Your task to perform on an android device: What's the weather going to be this weekend? Image 0: 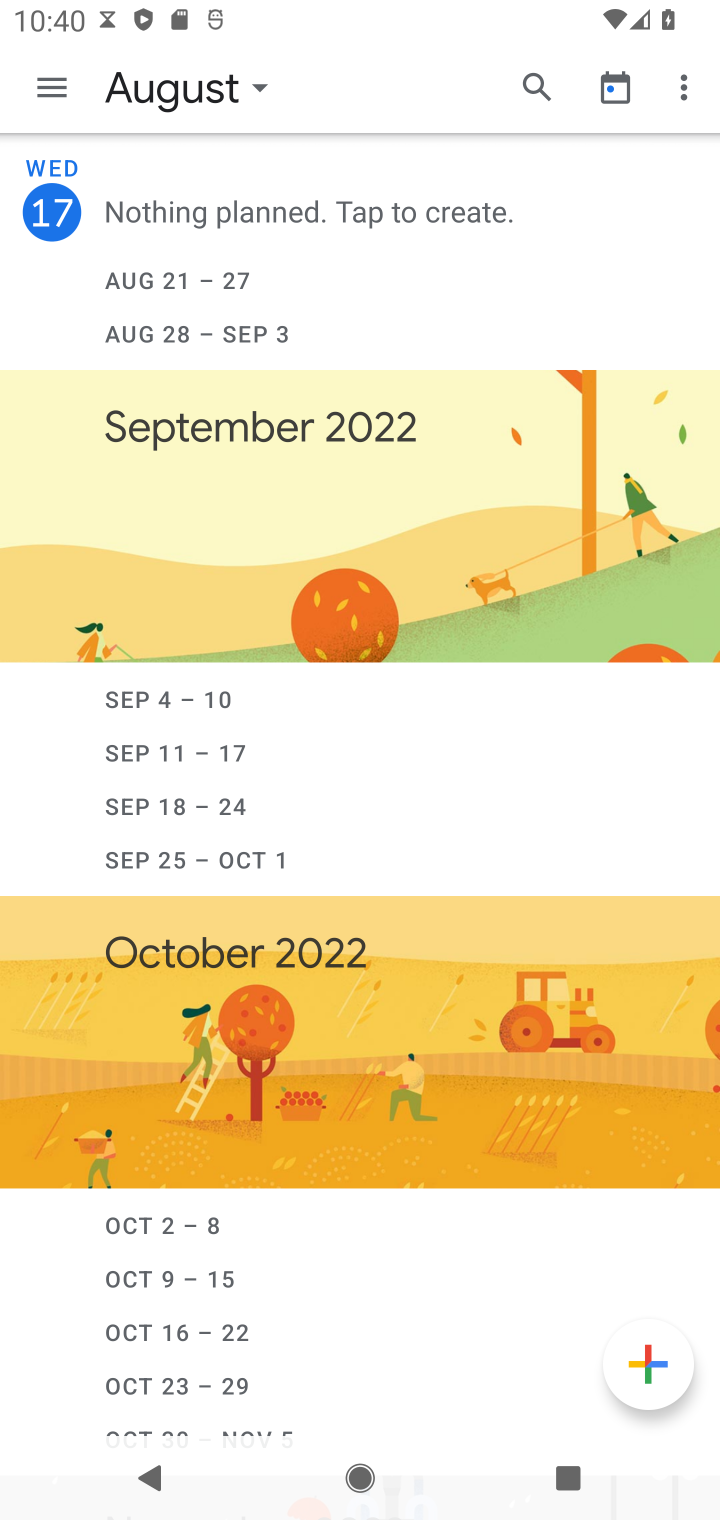
Step 0: press back button
Your task to perform on an android device: What's the weather going to be this weekend? Image 1: 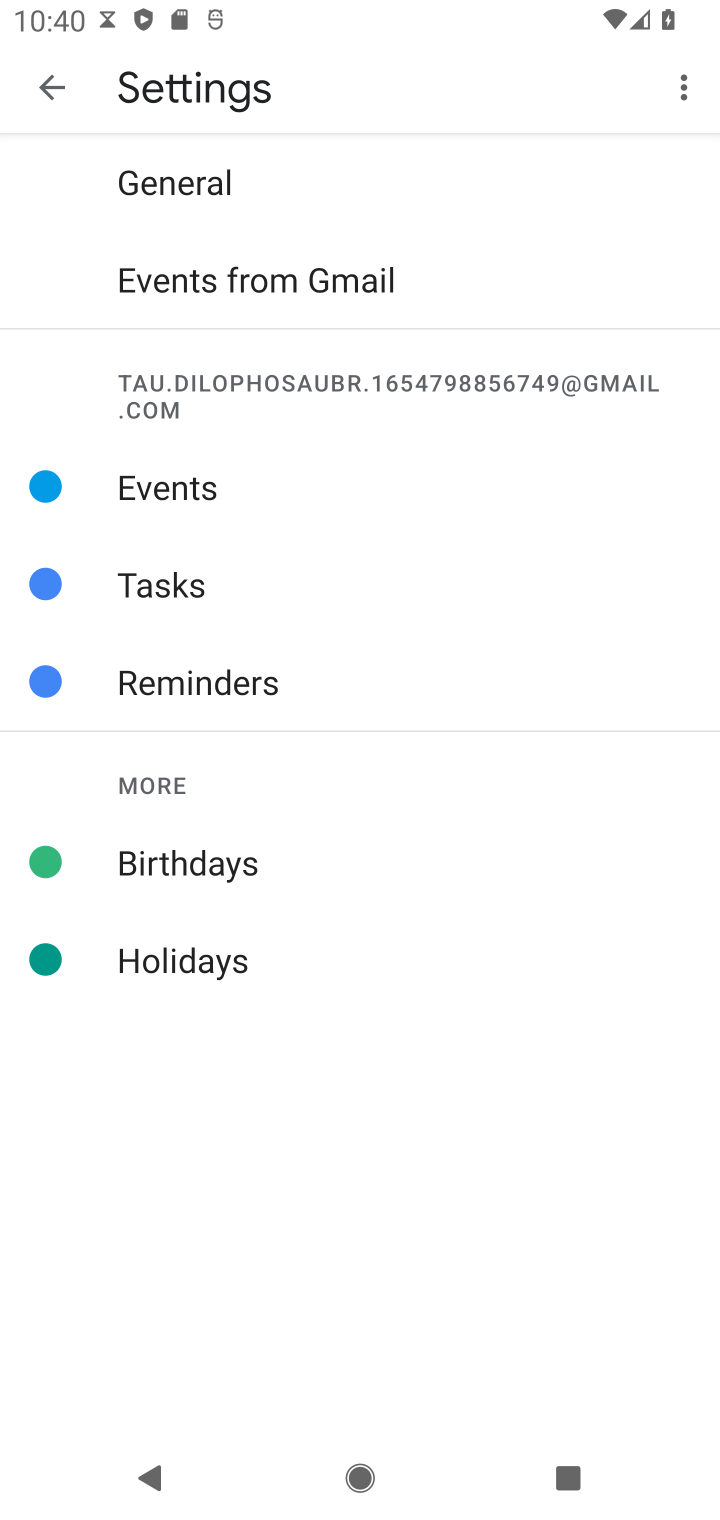
Step 1: press back button
Your task to perform on an android device: What's the weather going to be this weekend? Image 2: 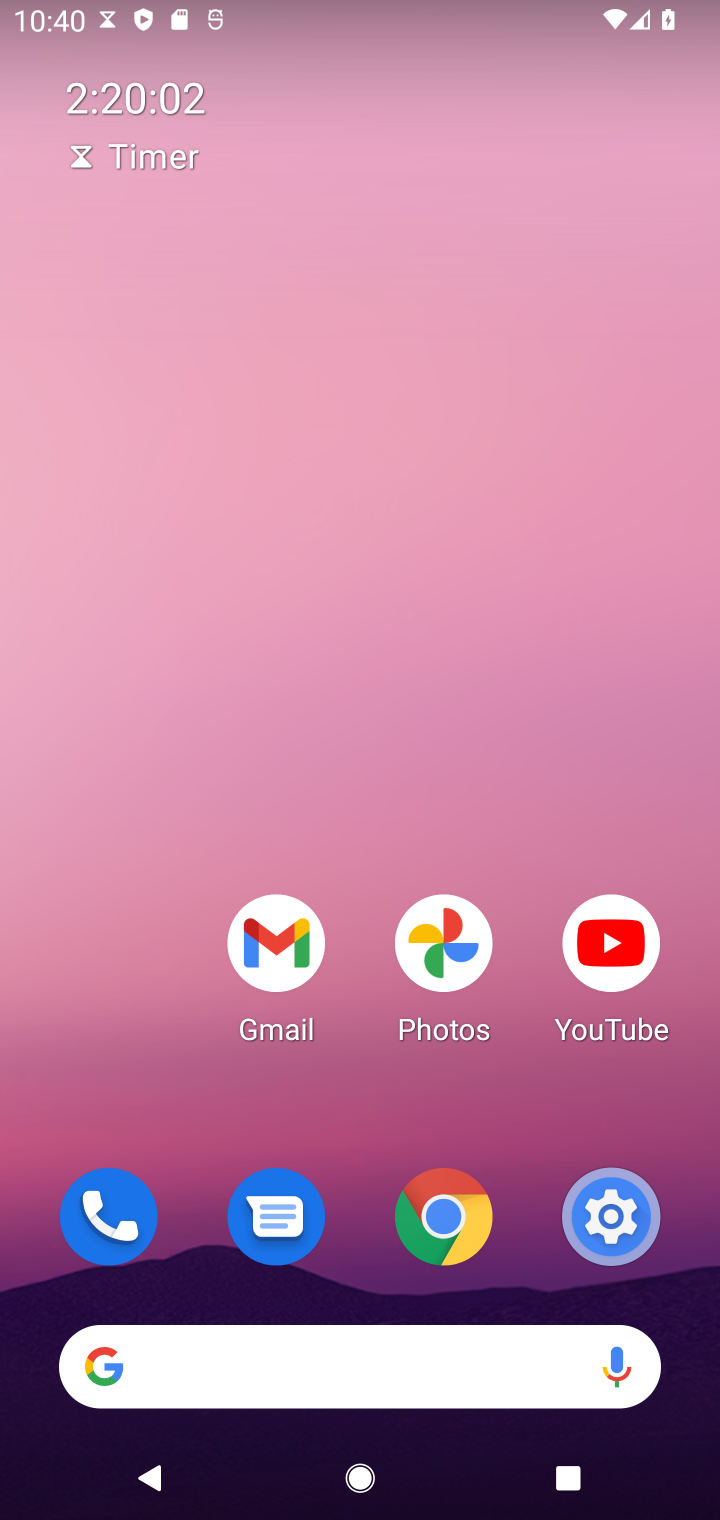
Step 2: click (301, 1367)
Your task to perform on an android device: What's the weather going to be this weekend? Image 3: 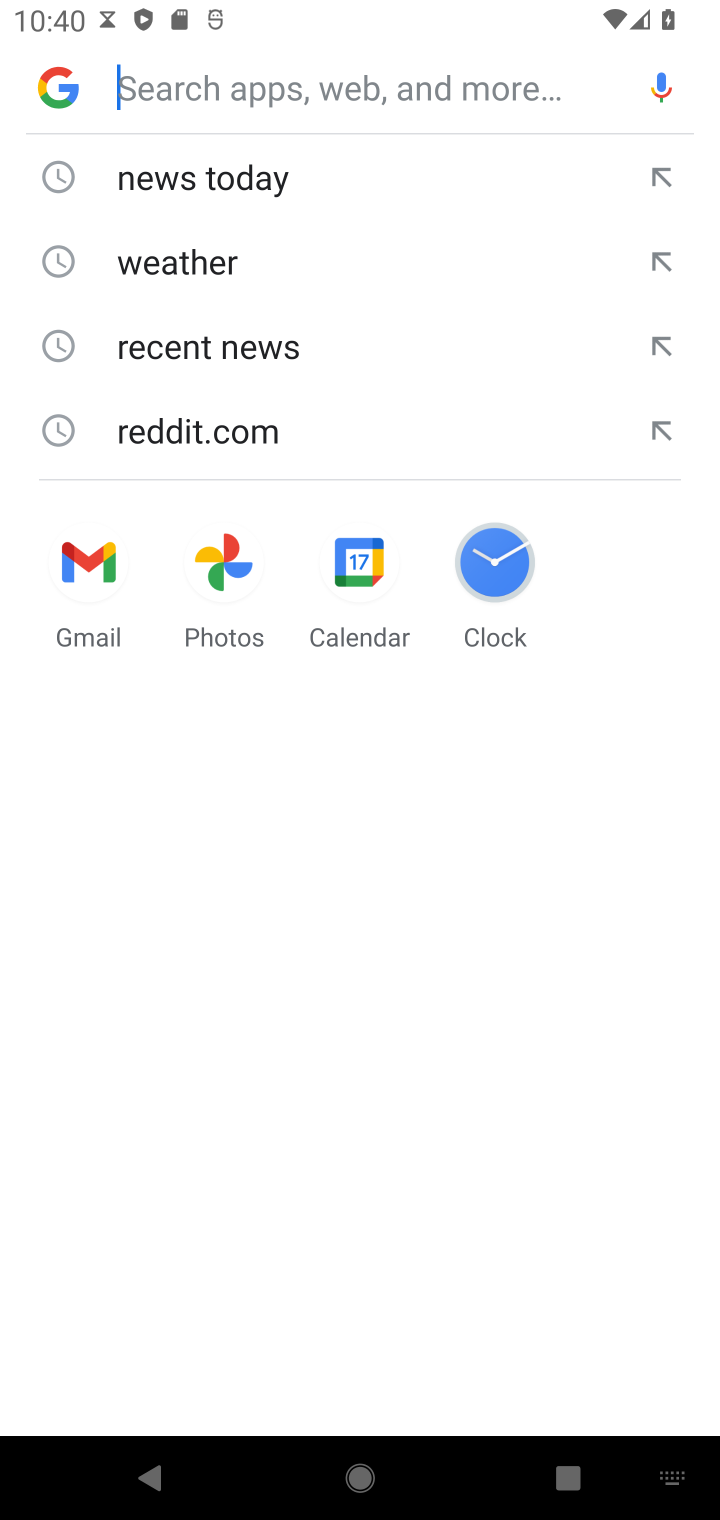
Step 3: click (217, 259)
Your task to perform on an android device: What's the weather going to be this weekend? Image 4: 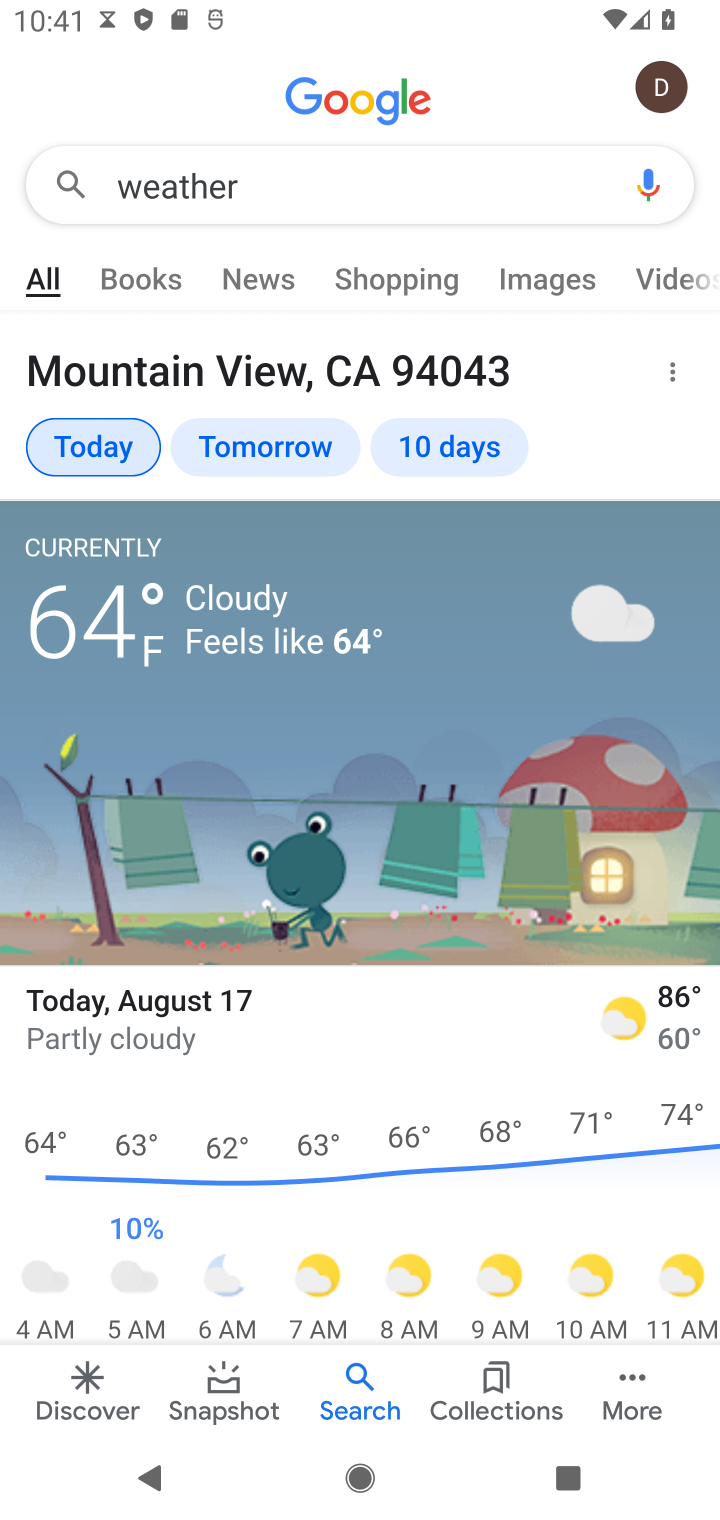
Step 4: click (445, 464)
Your task to perform on an android device: What's the weather going to be this weekend? Image 5: 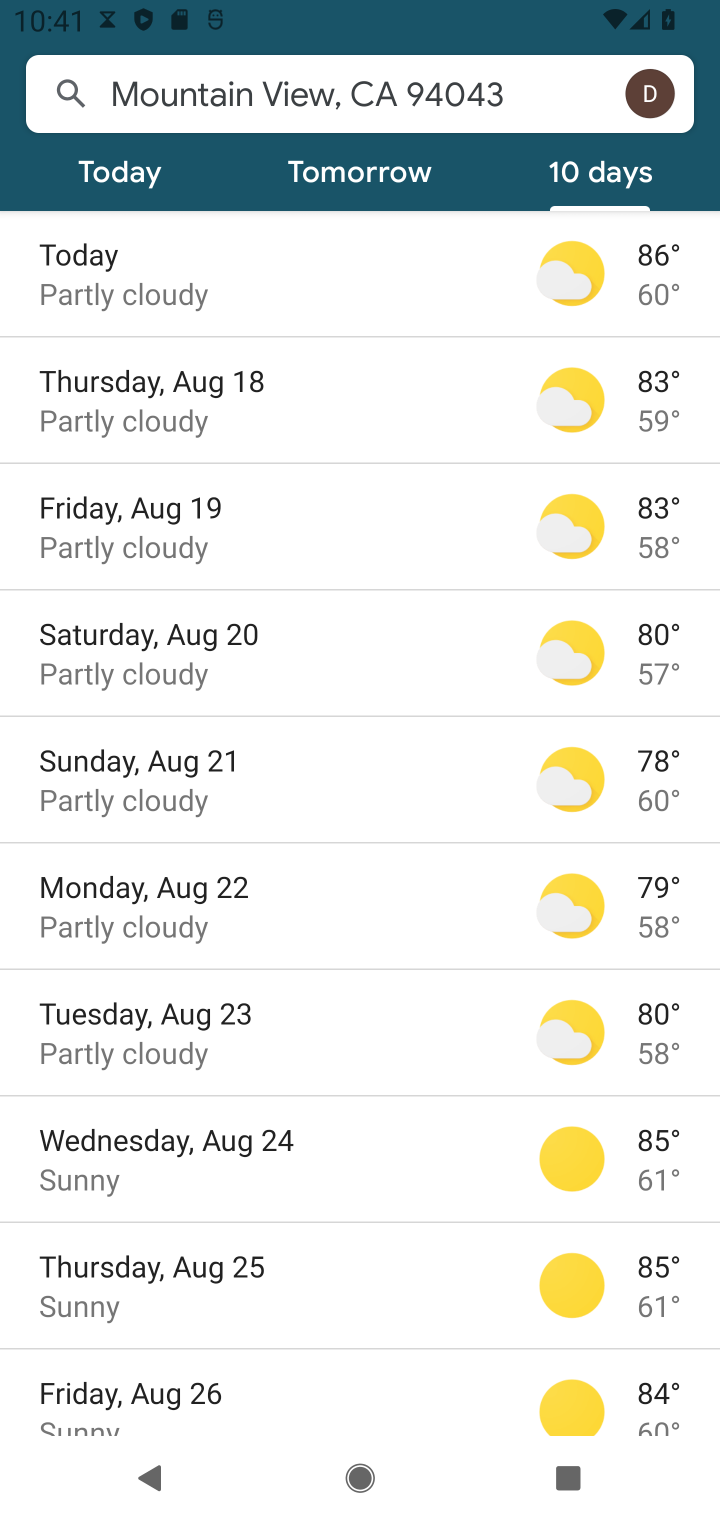
Step 5: task complete